Your task to perform on an android device: refresh tabs in the chrome app Image 0: 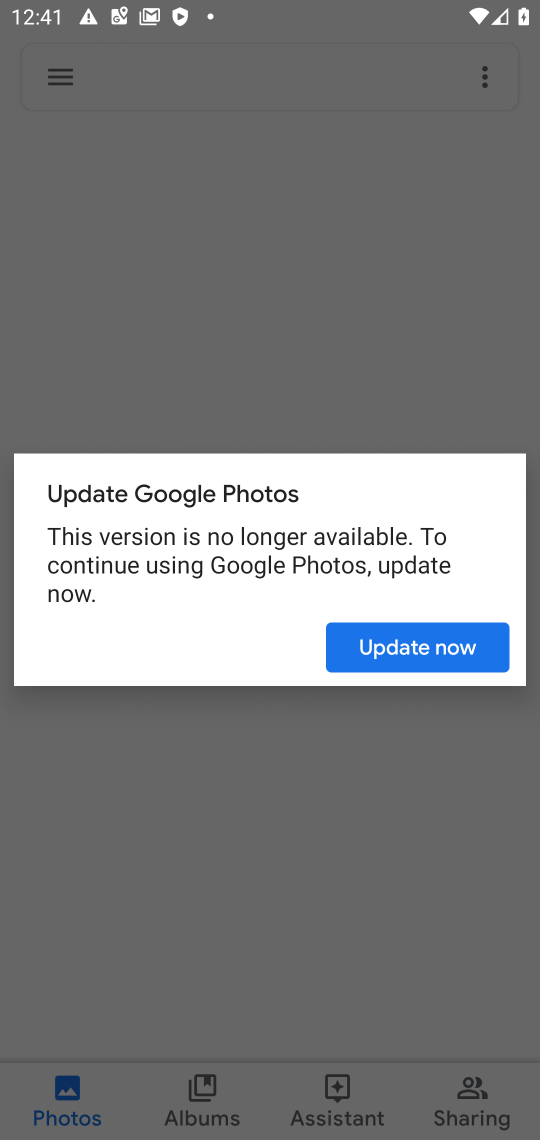
Step 0: press home button
Your task to perform on an android device: refresh tabs in the chrome app Image 1: 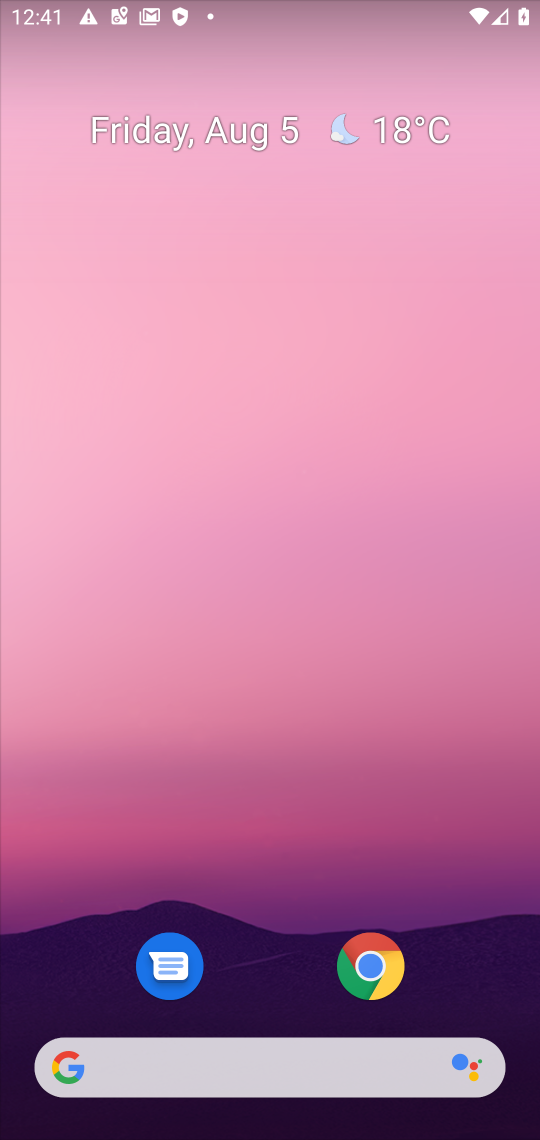
Step 1: click (383, 948)
Your task to perform on an android device: refresh tabs in the chrome app Image 2: 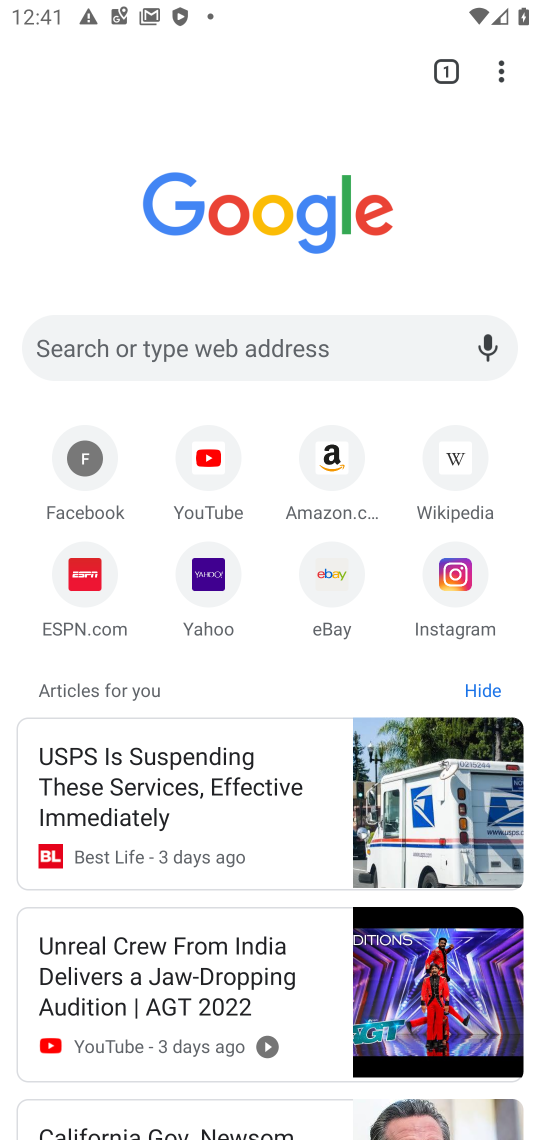
Step 2: click (495, 62)
Your task to perform on an android device: refresh tabs in the chrome app Image 3: 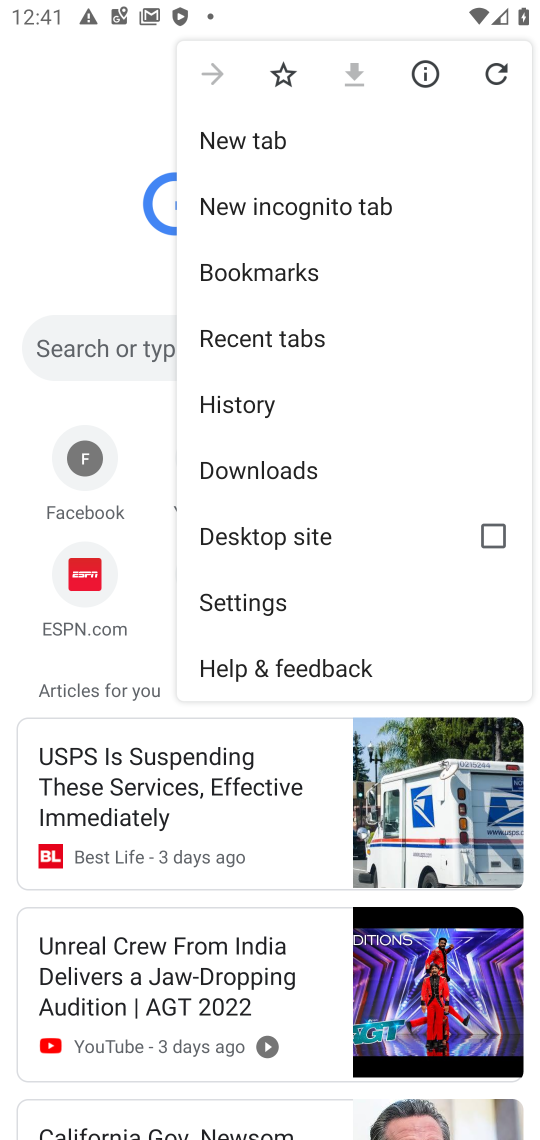
Step 3: click (495, 62)
Your task to perform on an android device: refresh tabs in the chrome app Image 4: 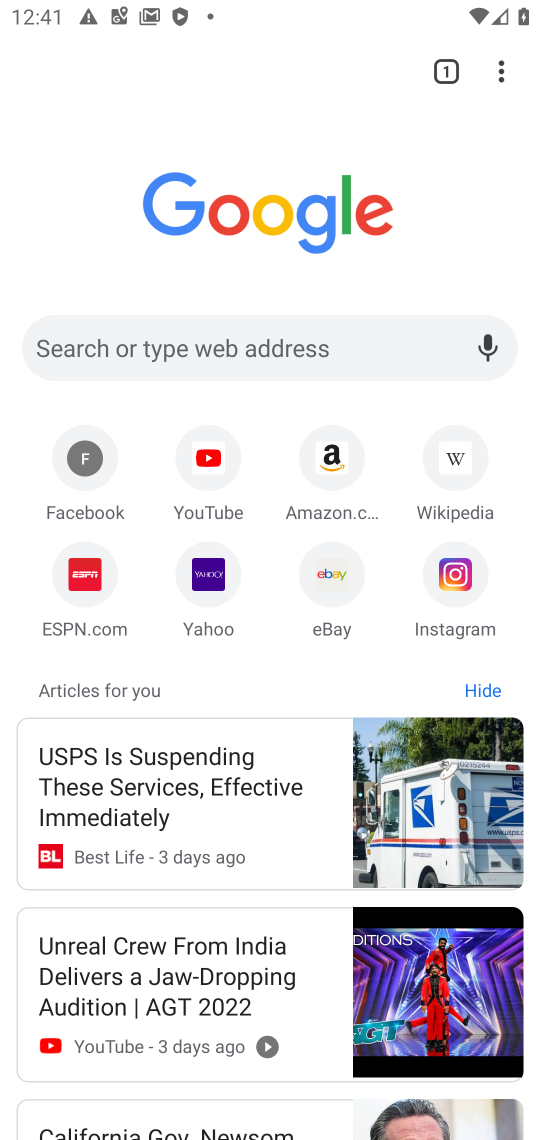
Step 4: task complete